Your task to perform on an android device: add a contact Image 0: 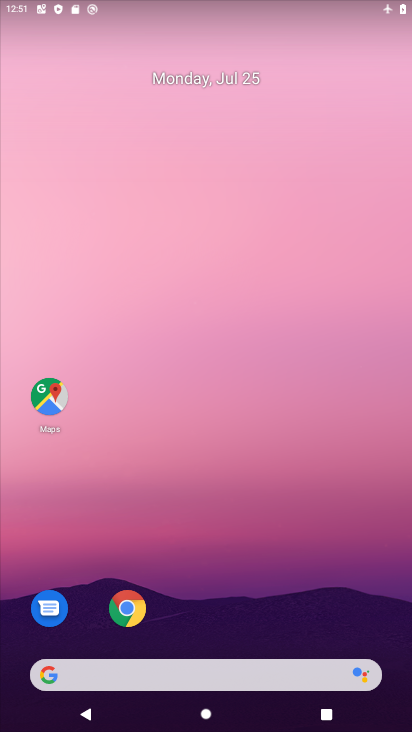
Step 0: drag from (178, 636) to (283, 7)
Your task to perform on an android device: add a contact Image 1: 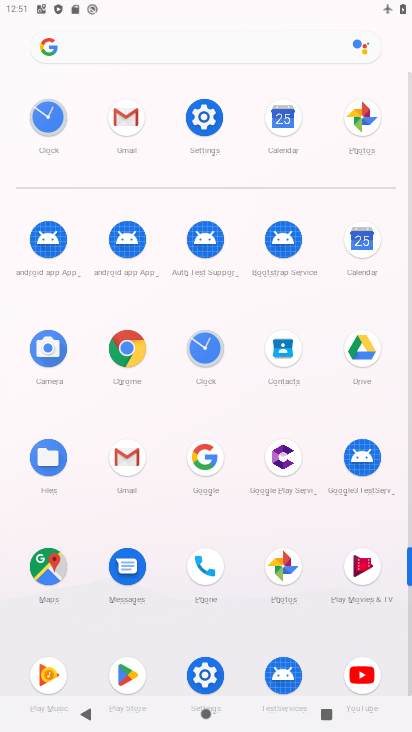
Step 1: click (281, 356)
Your task to perform on an android device: add a contact Image 2: 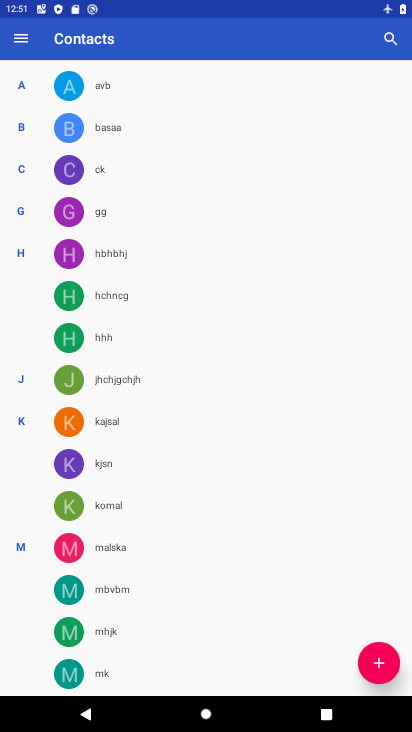
Step 2: click (388, 659)
Your task to perform on an android device: add a contact Image 3: 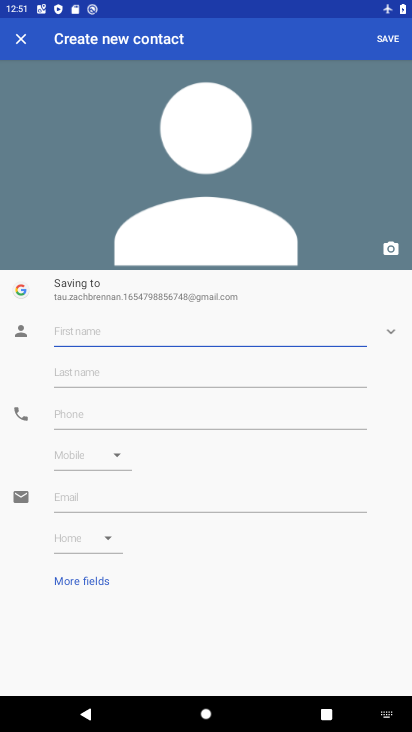
Step 3: click (118, 326)
Your task to perform on an android device: add a contact Image 4: 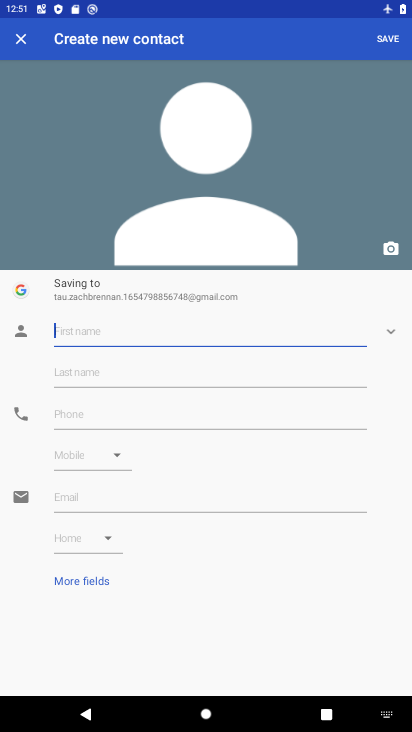
Step 4: type "tailor"
Your task to perform on an android device: add a contact Image 5: 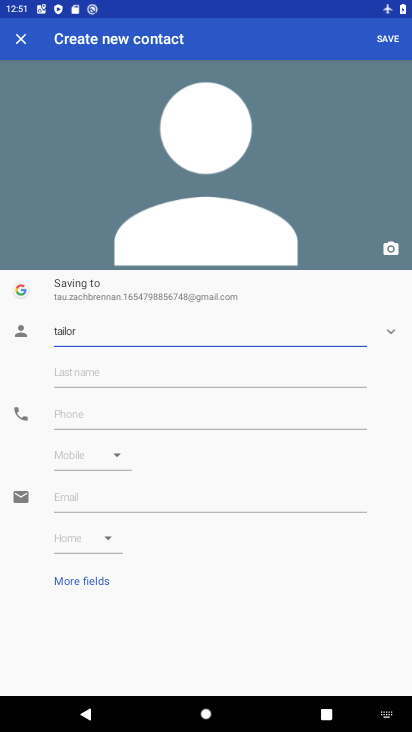
Step 5: click (82, 408)
Your task to perform on an android device: add a contact Image 6: 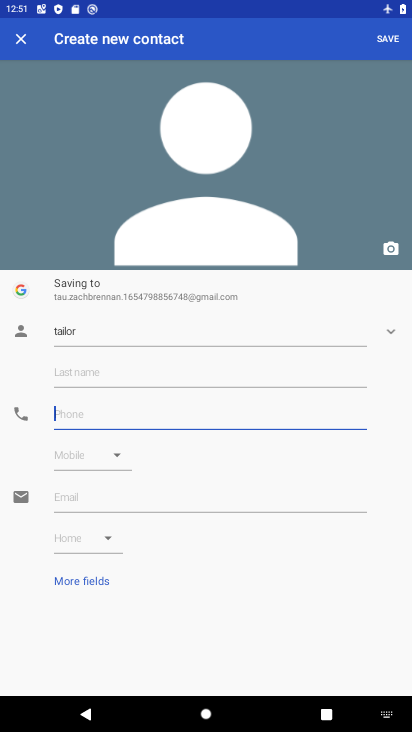
Step 6: type "654334567"
Your task to perform on an android device: add a contact Image 7: 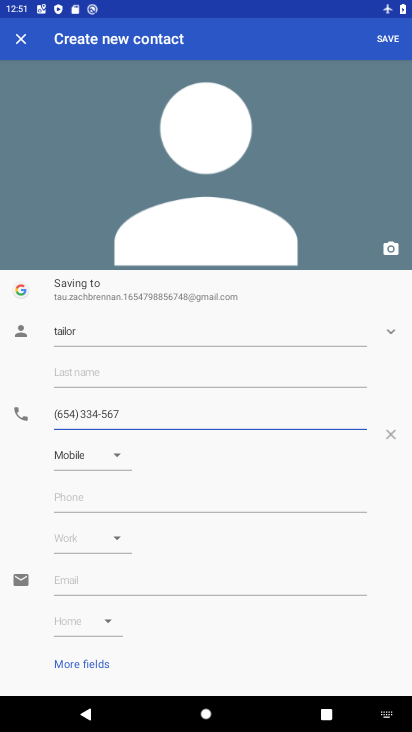
Step 7: click (400, 36)
Your task to perform on an android device: add a contact Image 8: 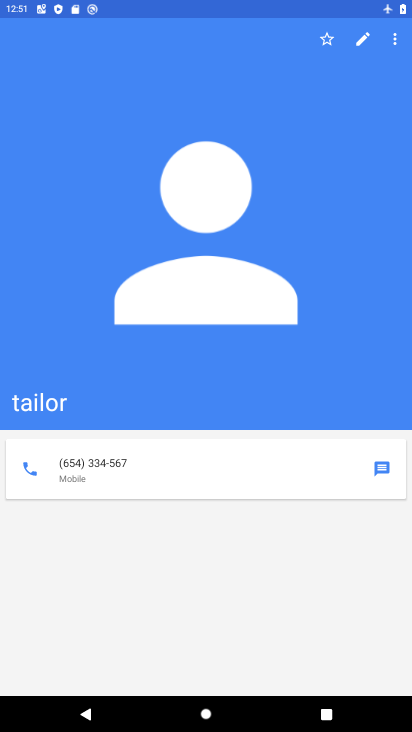
Step 8: task complete